Your task to perform on an android device: Open Google Chrome and click the shortcut for Amazon.com Image 0: 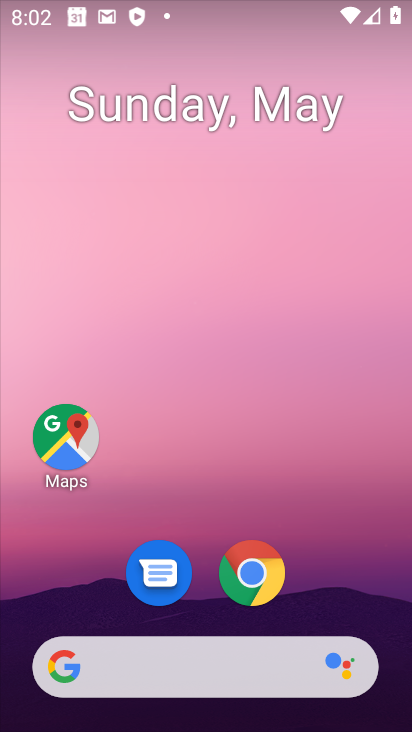
Step 0: click (246, 572)
Your task to perform on an android device: Open Google Chrome and click the shortcut for Amazon.com Image 1: 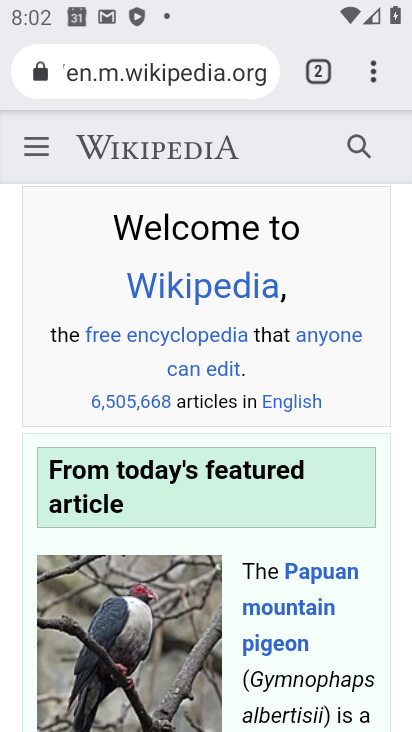
Step 1: click (368, 115)
Your task to perform on an android device: Open Google Chrome and click the shortcut for Amazon.com Image 2: 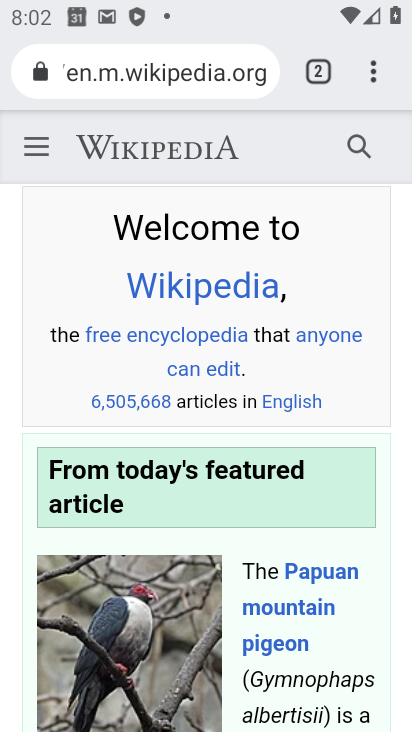
Step 2: click (370, 70)
Your task to perform on an android device: Open Google Chrome and click the shortcut for Amazon.com Image 3: 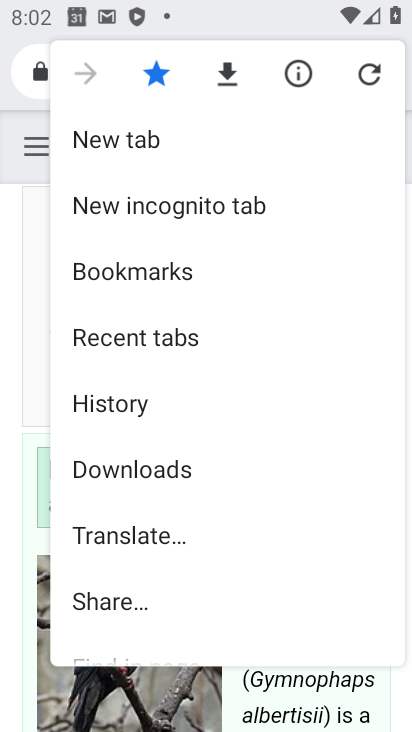
Step 3: click (276, 131)
Your task to perform on an android device: Open Google Chrome and click the shortcut for Amazon.com Image 4: 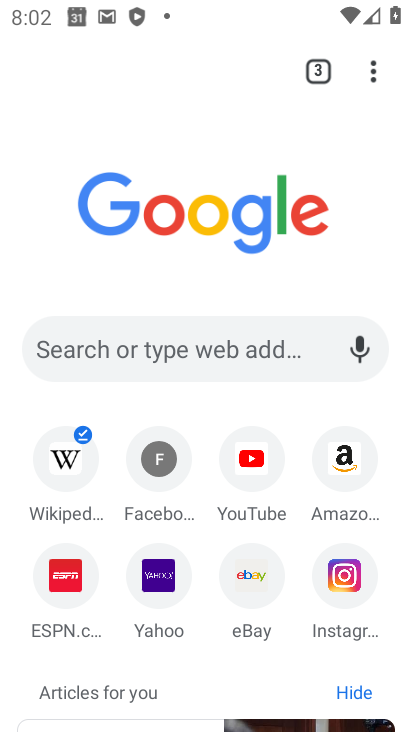
Step 4: click (344, 460)
Your task to perform on an android device: Open Google Chrome and click the shortcut for Amazon.com Image 5: 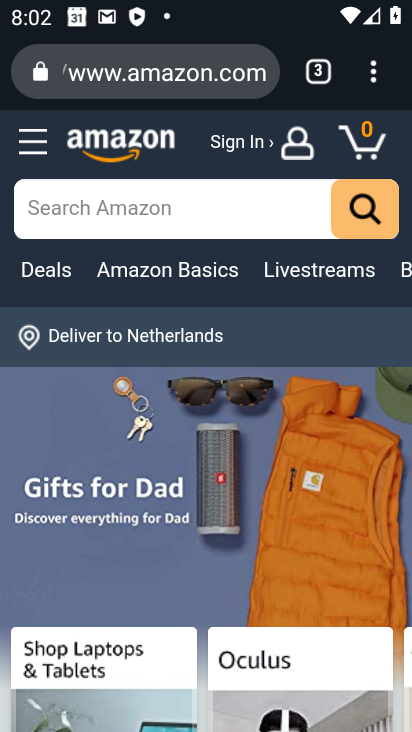
Step 5: task complete